Your task to perform on an android device: see tabs open on other devices in the chrome app Image 0: 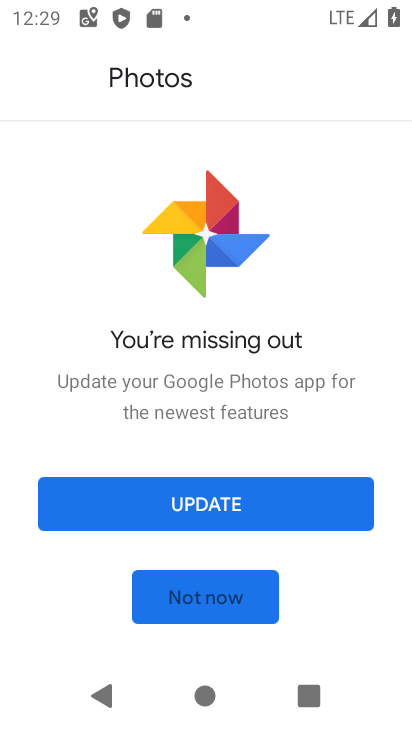
Step 0: drag from (371, 691) to (197, 176)
Your task to perform on an android device: see tabs open on other devices in the chrome app Image 1: 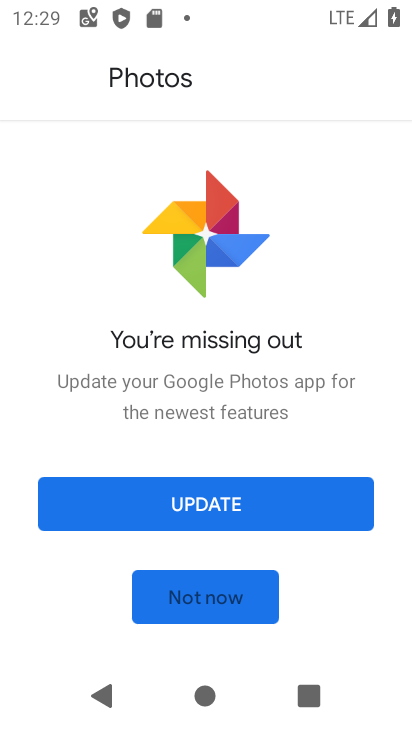
Step 1: click (203, 607)
Your task to perform on an android device: see tabs open on other devices in the chrome app Image 2: 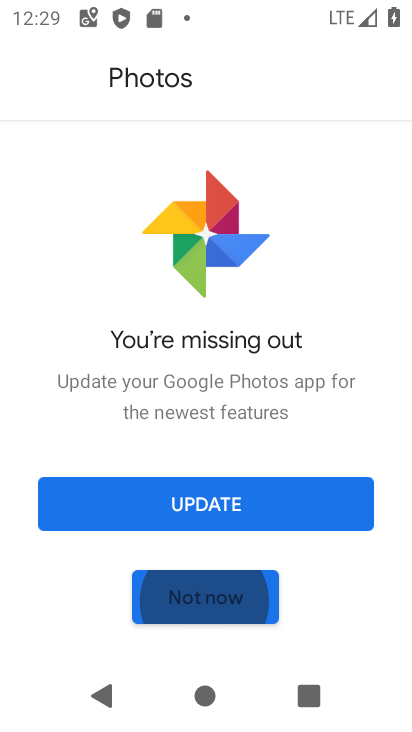
Step 2: click (204, 606)
Your task to perform on an android device: see tabs open on other devices in the chrome app Image 3: 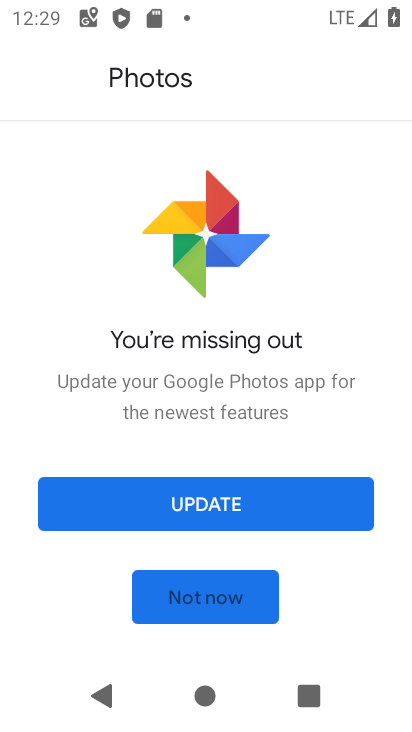
Step 3: click (204, 606)
Your task to perform on an android device: see tabs open on other devices in the chrome app Image 4: 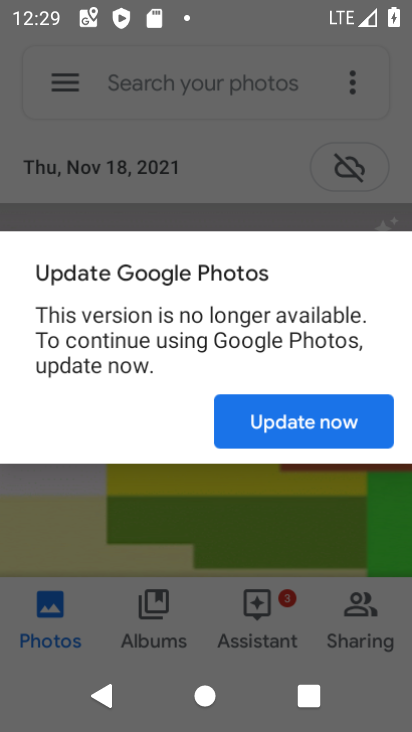
Step 4: click (204, 606)
Your task to perform on an android device: see tabs open on other devices in the chrome app Image 5: 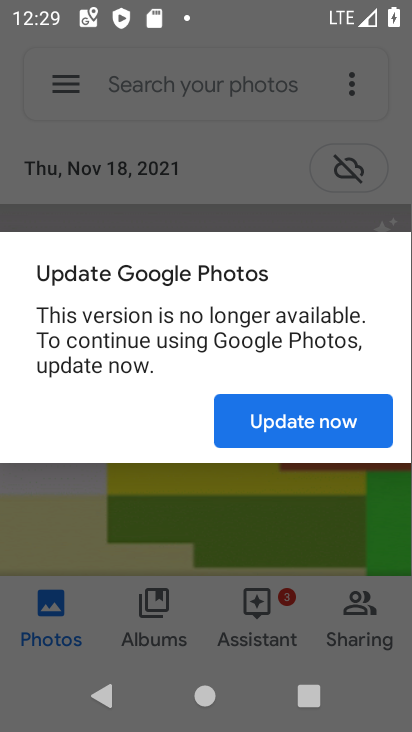
Step 5: press back button
Your task to perform on an android device: see tabs open on other devices in the chrome app Image 6: 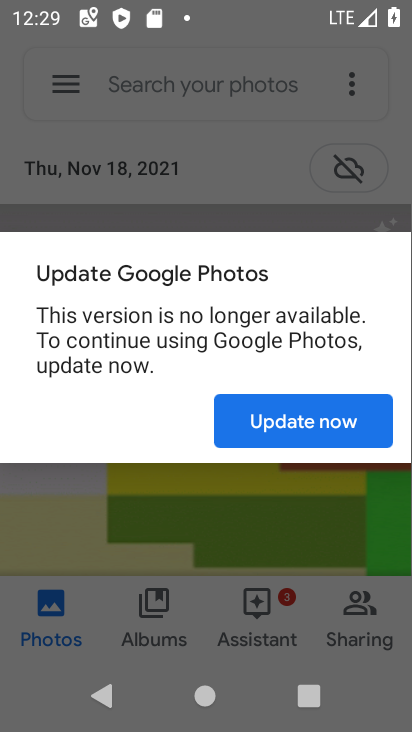
Step 6: press back button
Your task to perform on an android device: see tabs open on other devices in the chrome app Image 7: 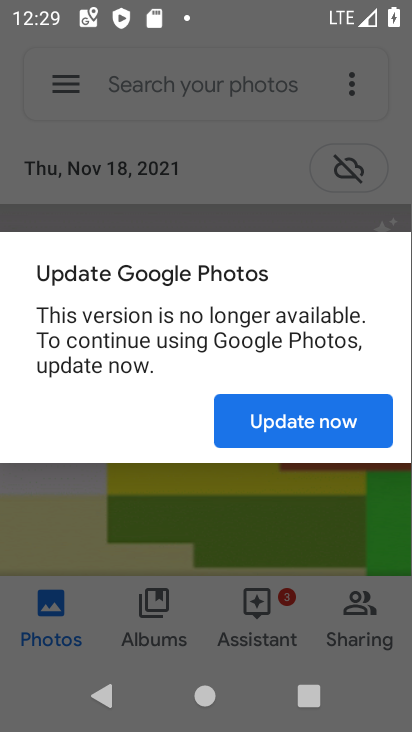
Step 7: press back button
Your task to perform on an android device: see tabs open on other devices in the chrome app Image 8: 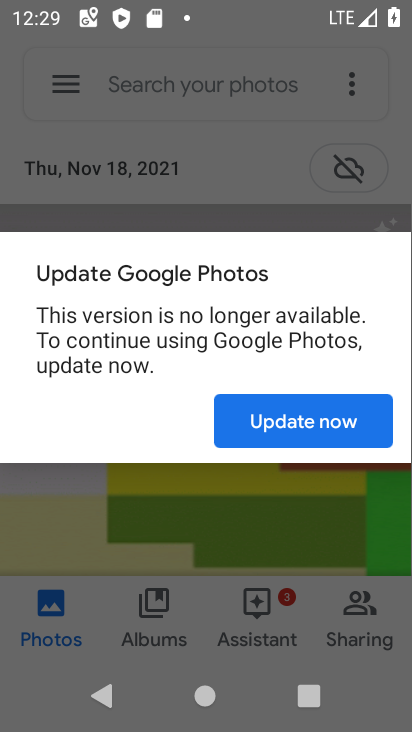
Step 8: press home button
Your task to perform on an android device: see tabs open on other devices in the chrome app Image 9: 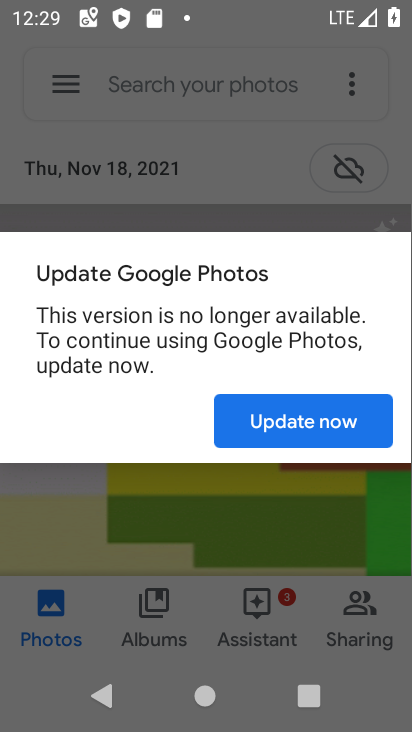
Step 9: press home button
Your task to perform on an android device: see tabs open on other devices in the chrome app Image 10: 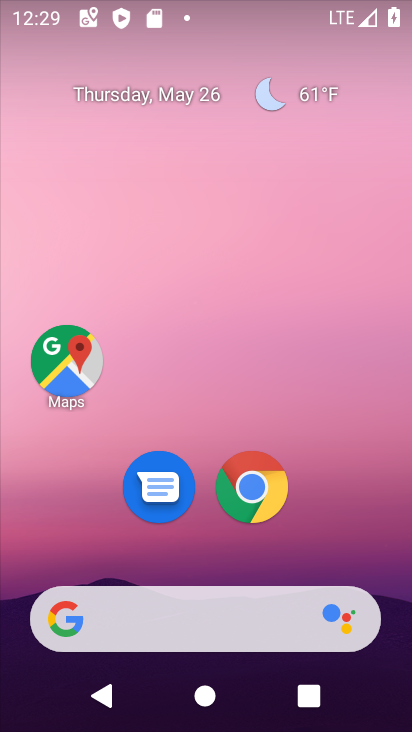
Step 10: drag from (371, 707) to (172, 101)
Your task to perform on an android device: see tabs open on other devices in the chrome app Image 11: 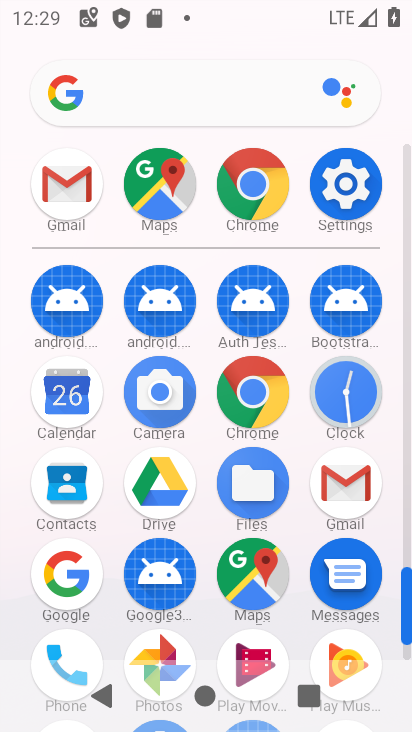
Step 11: click (245, 190)
Your task to perform on an android device: see tabs open on other devices in the chrome app Image 12: 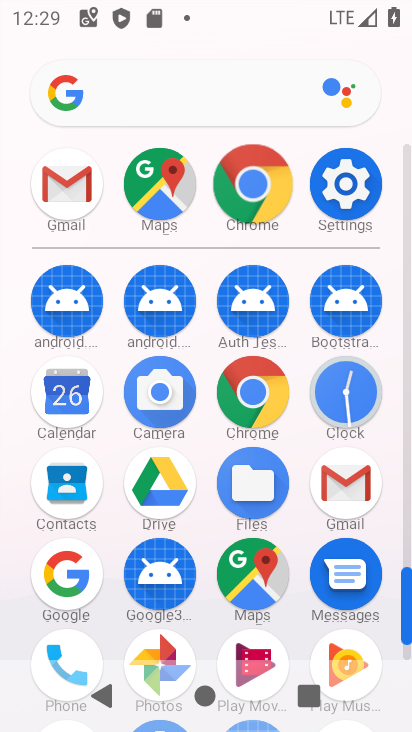
Step 12: click (248, 189)
Your task to perform on an android device: see tabs open on other devices in the chrome app Image 13: 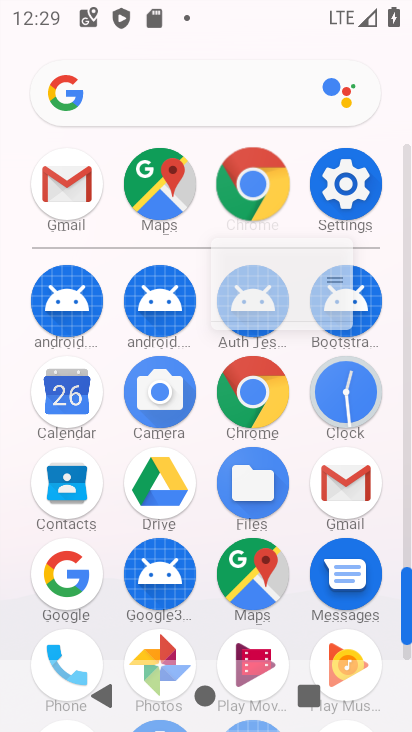
Step 13: click (248, 188)
Your task to perform on an android device: see tabs open on other devices in the chrome app Image 14: 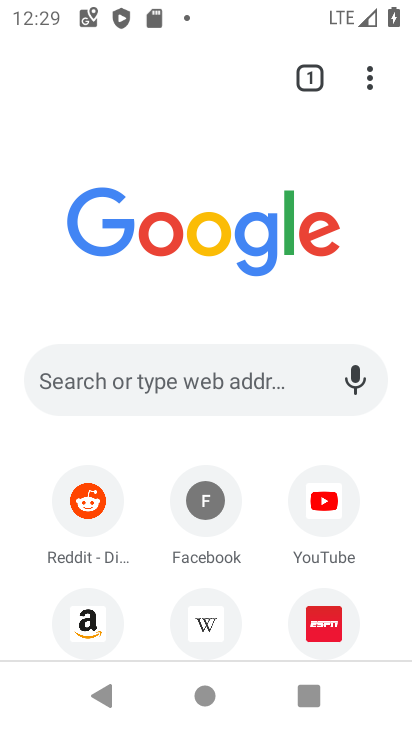
Step 14: drag from (373, 80) to (99, 265)
Your task to perform on an android device: see tabs open on other devices in the chrome app Image 15: 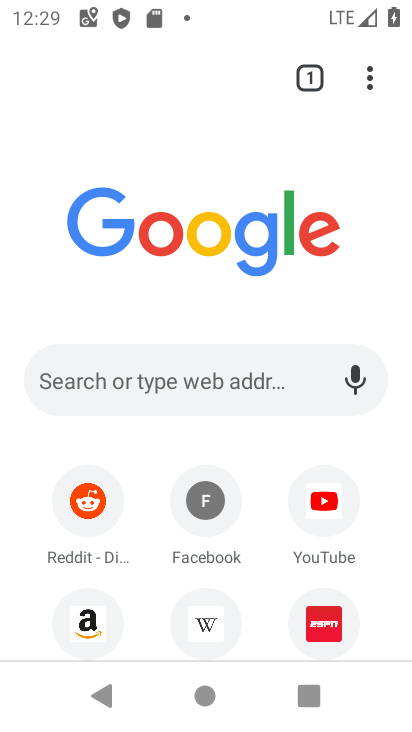
Step 15: click (100, 264)
Your task to perform on an android device: see tabs open on other devices in the chrome app Image 16: 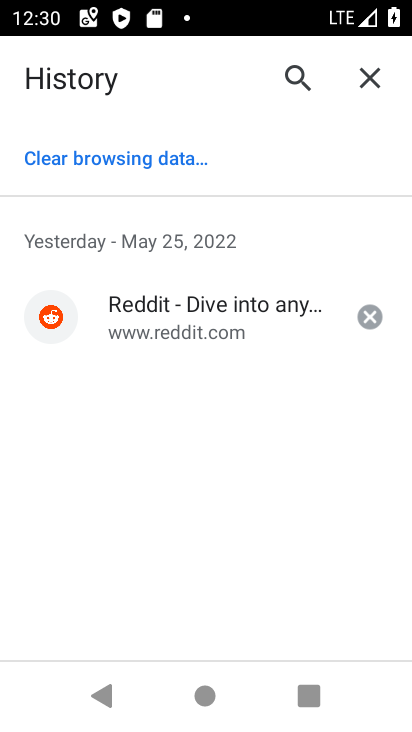
Step 16: press back button
Your task to perform on an android device: see tabs open on other devices in the chrome app Image 17: 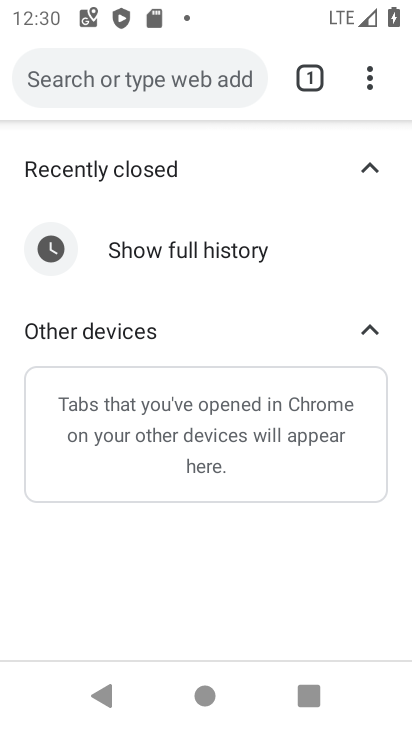
Step 17: drag from (370, 80) to (101, 256)
Your task to perform on an android device: see tabs open on other devices in the chrome app Image 18: 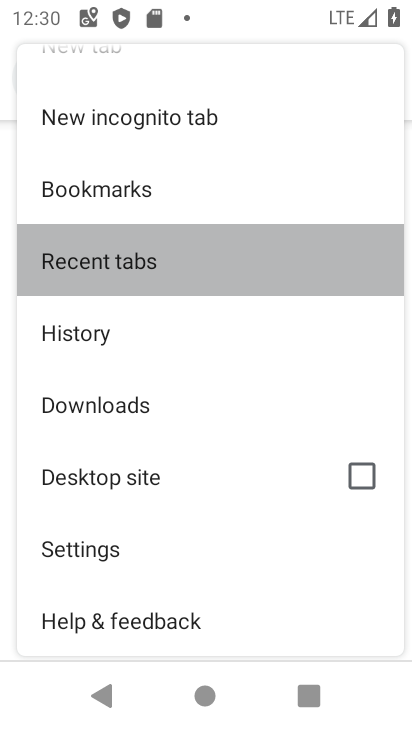
Step 18: click (101, 256)
Your task to perform on an android device: see tabs open on other devices in the chrome app Image 19: 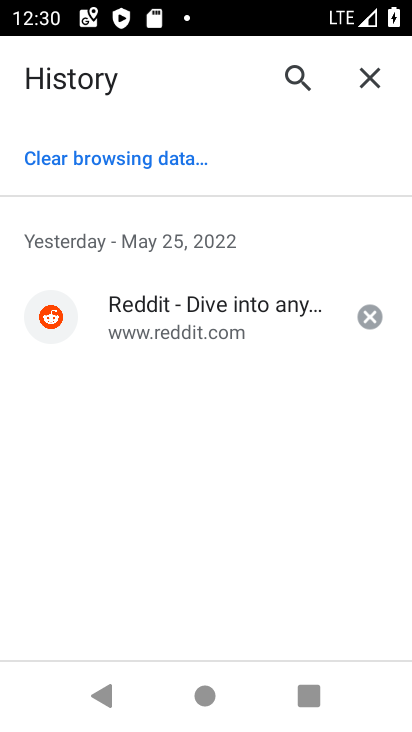
Step 19: task complete